Your task to perform on an android device: toggle translation in the chrome app Image 0: 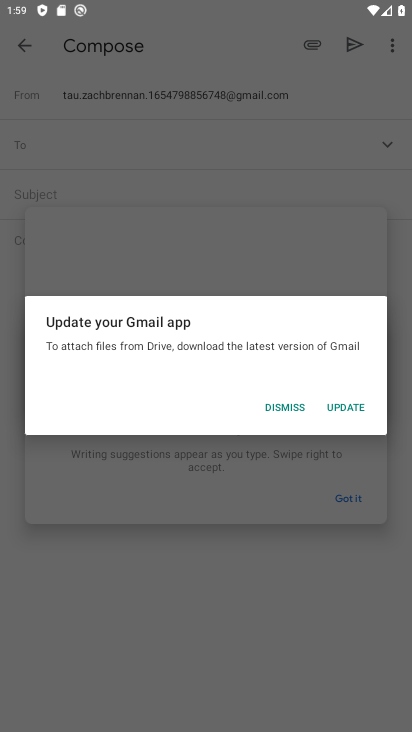
Step 0: press home button
Your task to perform on an android device: toggle translation in the chrome app Image 1: 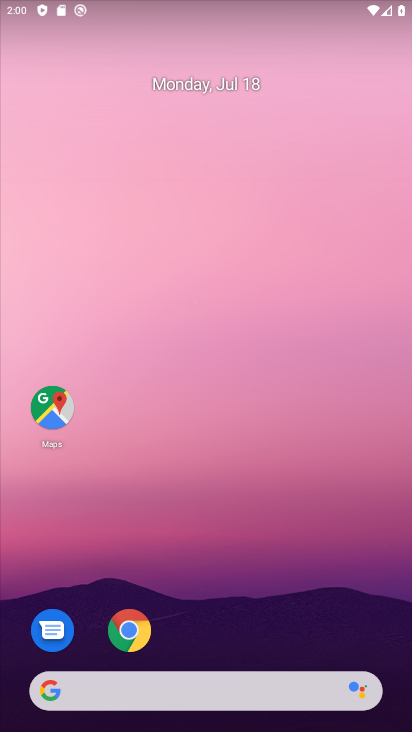
Step 1: click (131, 635)
Your task to perform on an android device: toggle translation in the chrome app Image 2: 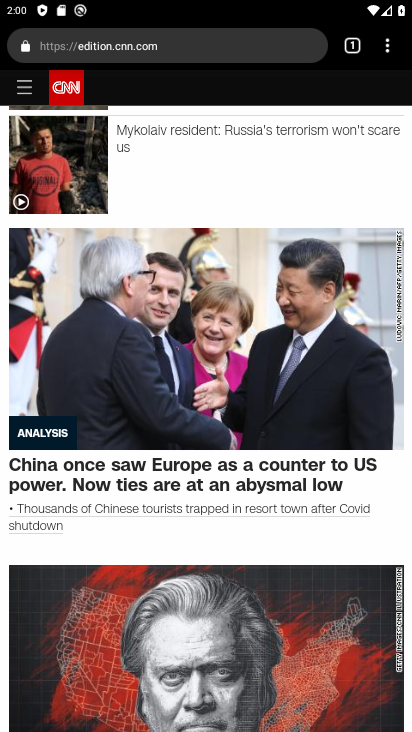
Step 2: click (389, 57)
Your task to perform on an android device: toggle translation in the chrome app Image 3: 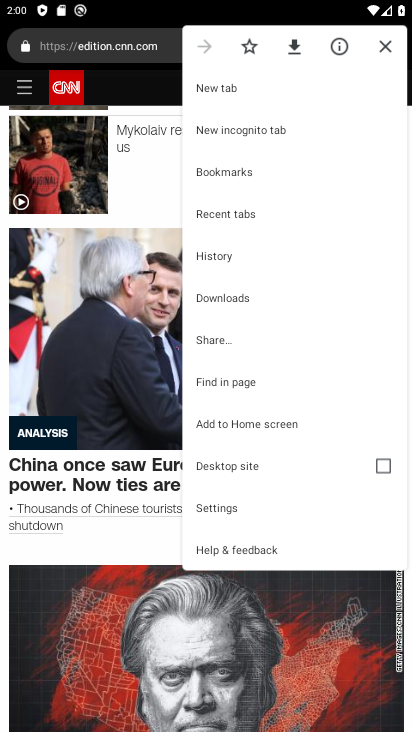
Step 3: click (222, 501)
Your task to perform on an android device: toggle translation in the chrome app Image 4: 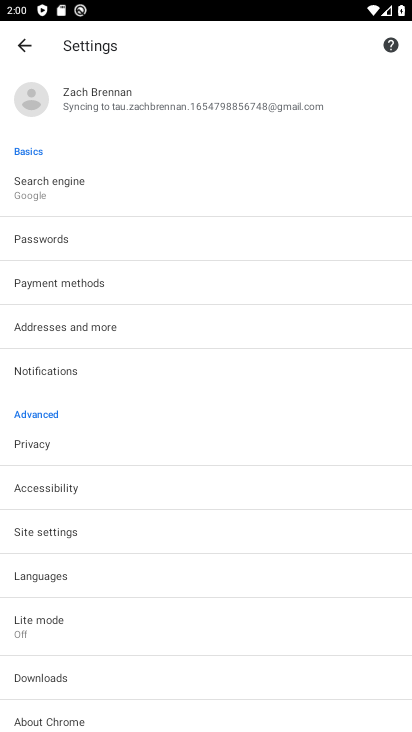
Step 4: click (35, 564)
Your task to perform on an android device: toggle translation in the chrome app Image 5: 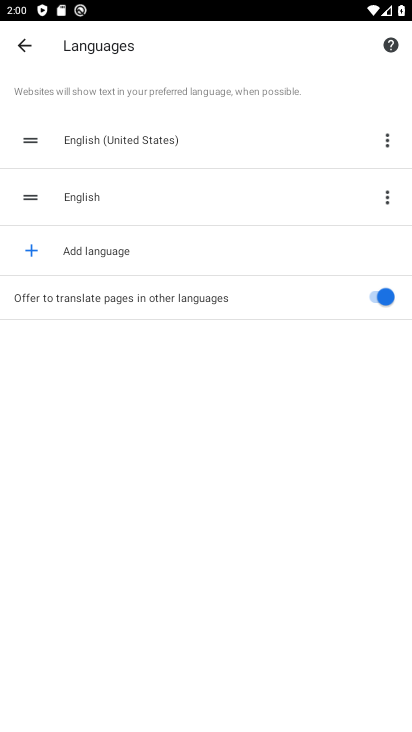
Step 5: click (367, 297)
Your task to perform on an android device: toggle translation in the chrome app Image 6: 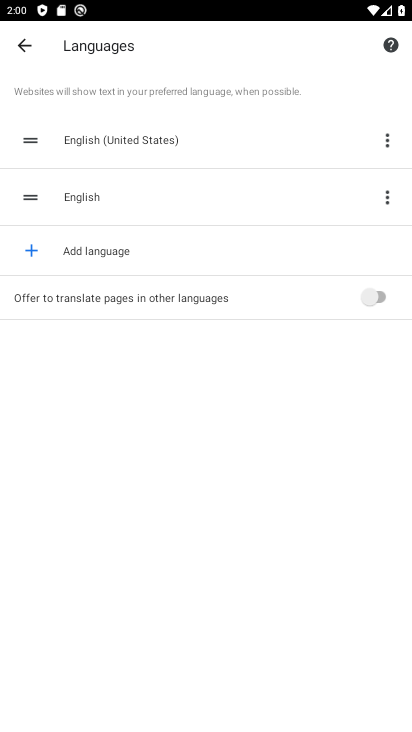
Step 6: task complete